Your task to perform on an android device: Turn off the flashlight Image 0: 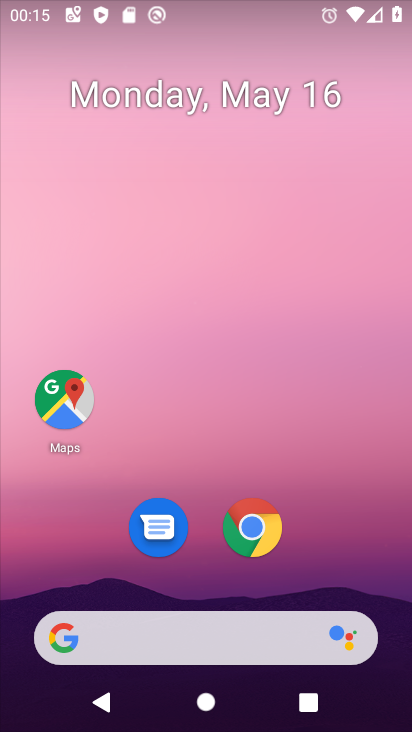
Step 0: drag from (321, 587) to (303, 150)
Your task to perform on an android device: Turn off the flashlight Image 1: 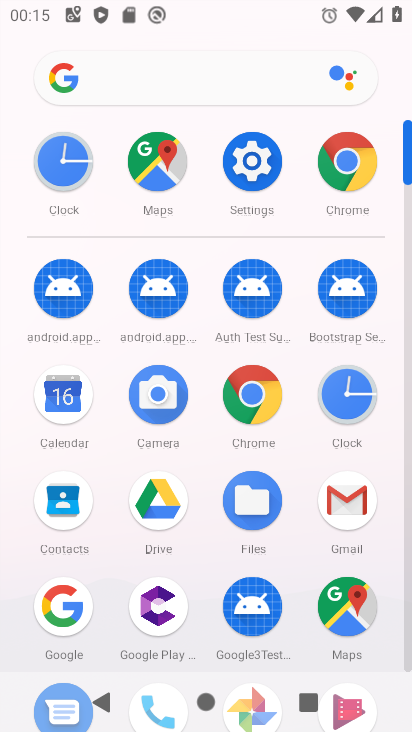
Step 1: click (242, 165)
Your task to perform on an android device: Turn off the flashlight Image 2: 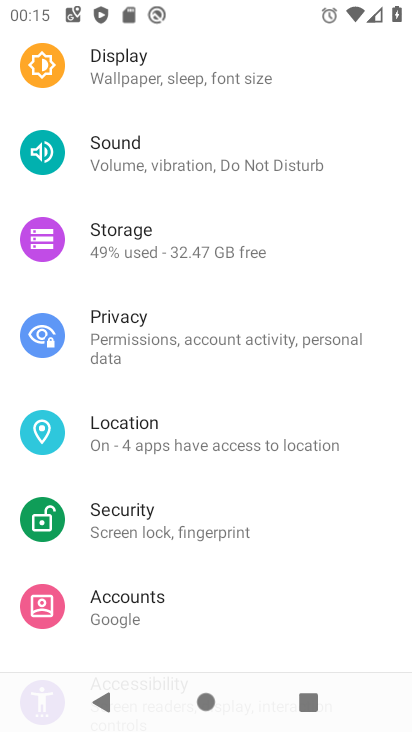
Step 2: click (237, 284)
Your task to perform on an android device: Turn off the flashlight Image 3: 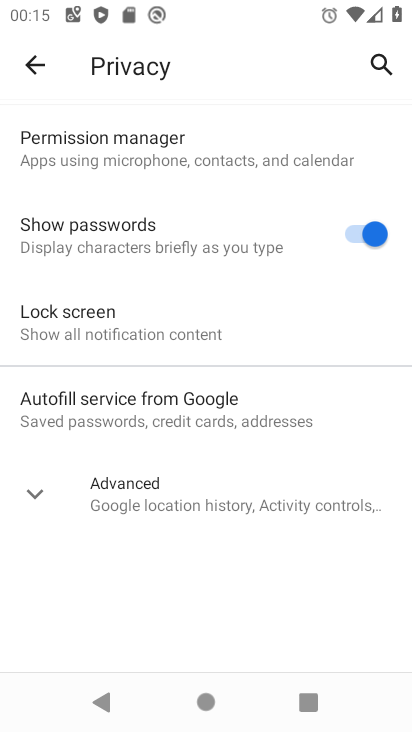
Step 3: task complete